Your task to perform on an android device: toggle data saver in the chrome app Image 0: 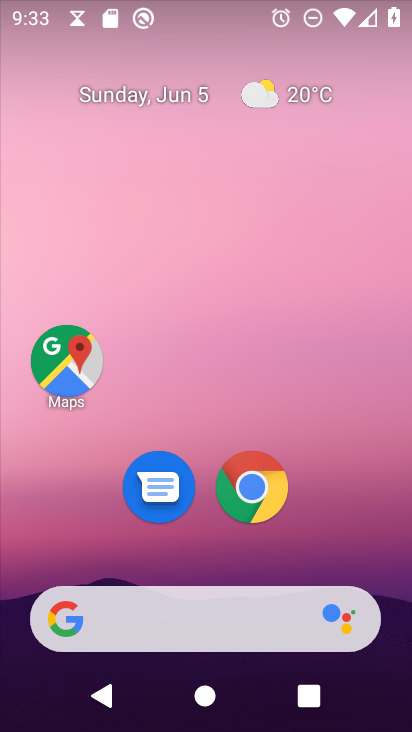
Step 0: click (247, 483)
Your task to perform on an android device: toggle data saver in the chrome app Image 1: 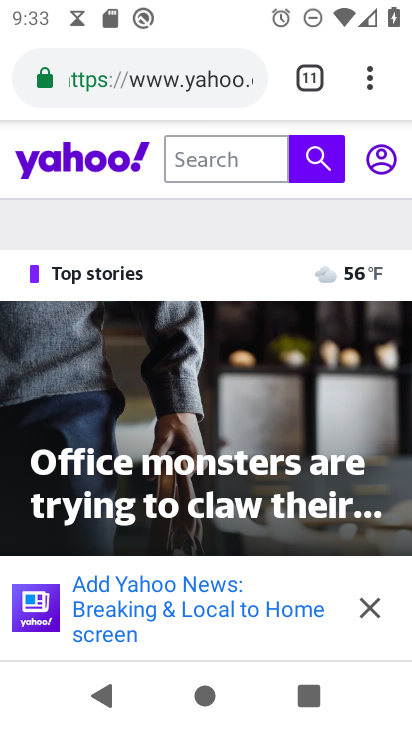
Step 1: click (390, 58)
Your task to perform on an android device: toggle data saver in the chrome app Image 2: 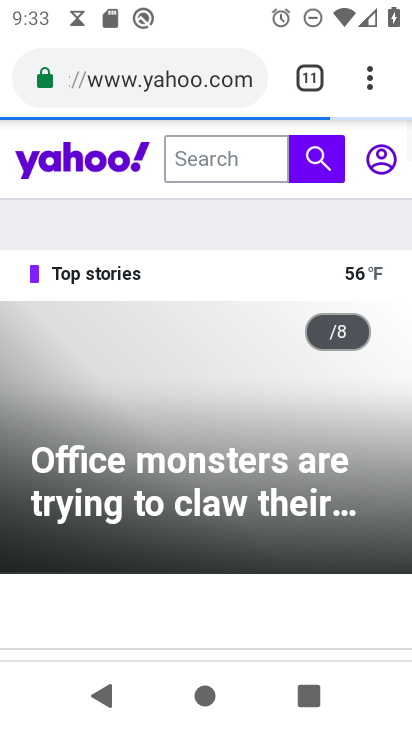
Step 2: click (366, 73)
Your task to perform on an android device: toggle data saver in the chrome app Image 3: 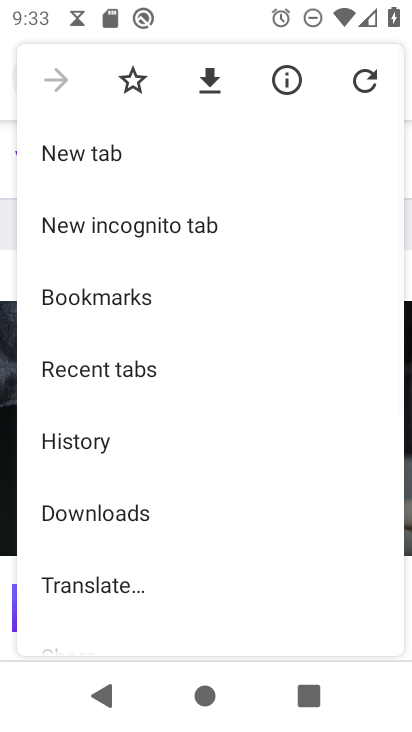
Step 3: drag from (232, 574) to (239, 260)
Your task to perform on an android device: toggle data saver in the chrome app Image 4: 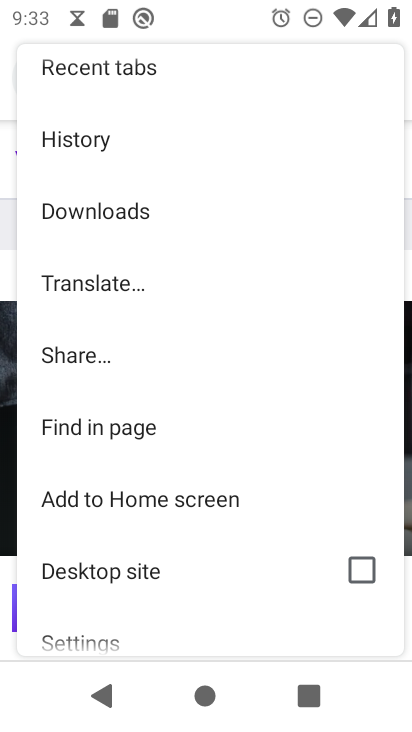
Step 4: drag from (152, 583) to (169, 370)
Your task to perform on an android device: toggle data saver in the chrome app Image 5: 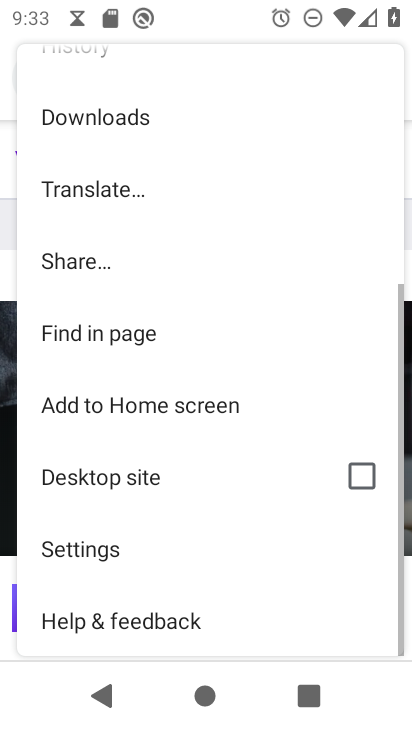
Step 5: click (91, 550)
Your task to perform on an android device: toggle data saver in the chrome app Image 6: 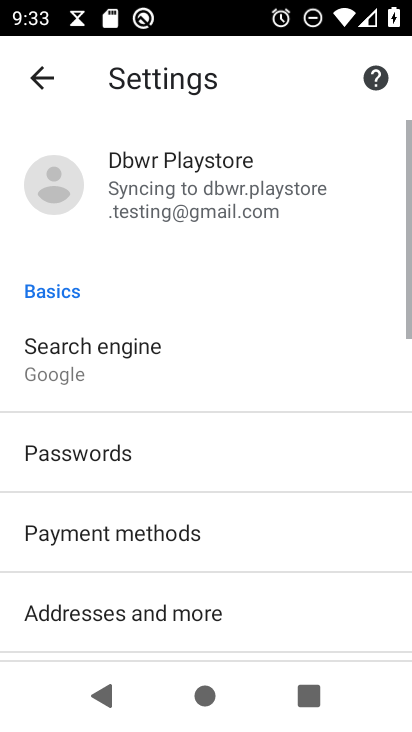
Step 6: drag from (220, 574) to (259, 239)
Your task to perform on an android device: toggle data saver in the chrome app Image 7: 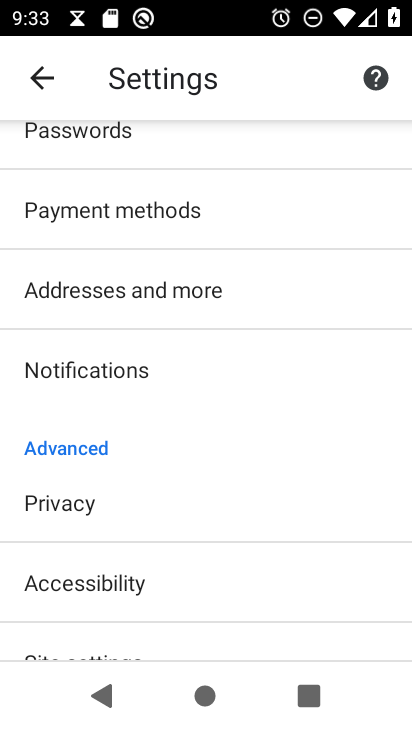
Step 7: drag from (175, 583) to (218, 278)
Your task to perform on an android device: toggle data saver in the chrome app Image 8: 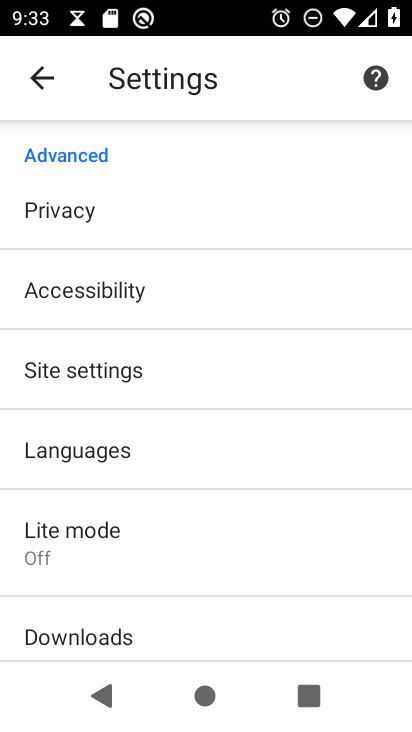
Step 8: click (150, 530)
Your task to perform on an android device: toggle data saver in the chrome app Image 9: 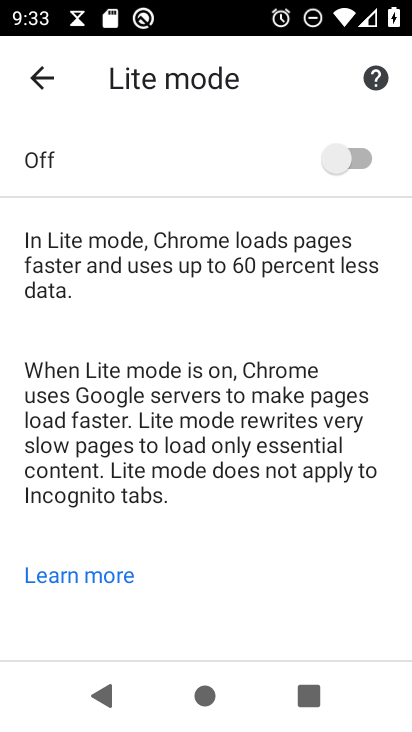
Step 9: click (353, 136)
Your task to perform on an android device: toggle data saver in the chrome app Image 10: 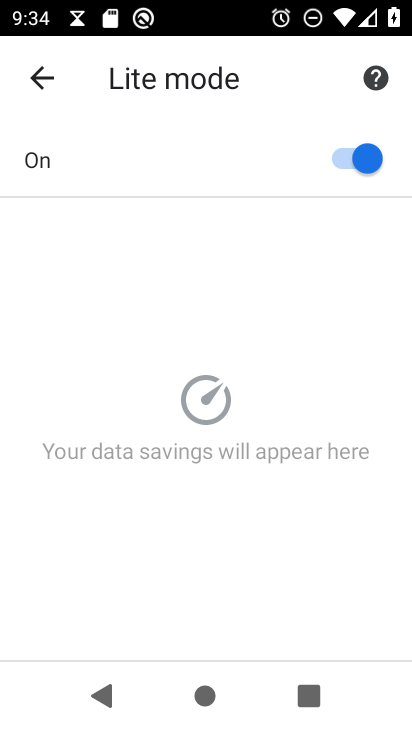
Step 10: task complete